Your task to perform on an android device: Open settings Image 0: 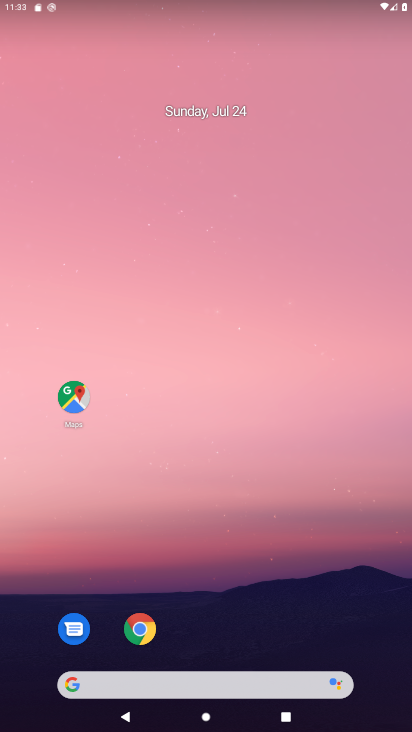
Step 0: drag from (244, 600) to (251, 41)
Your task to perform on an android device: Open settings Image 1: 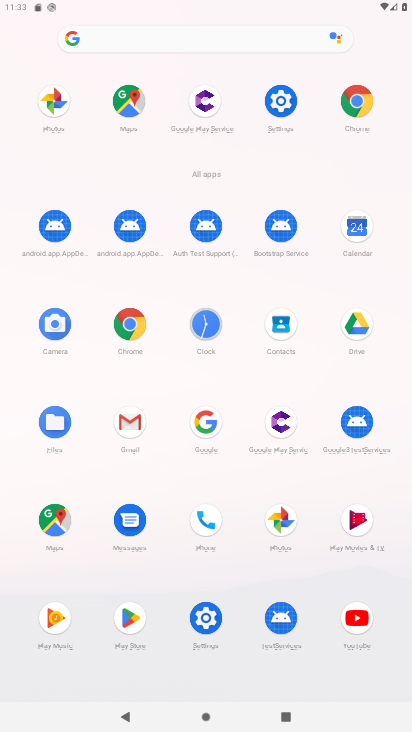
Step 1: click (278, 102)
Your task to perform on an android device: Open settings Image 2: 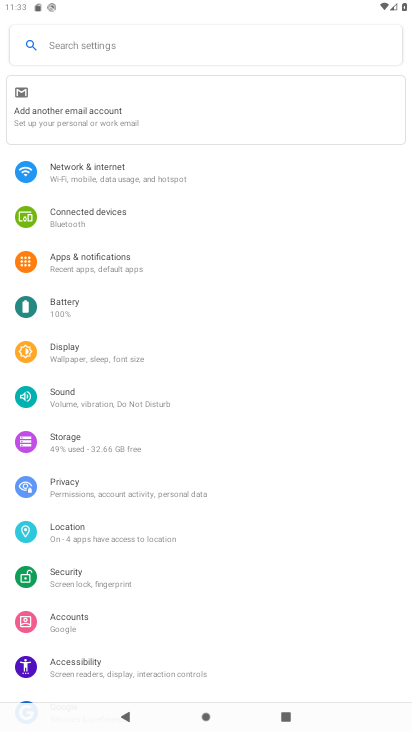
Step 2: task complete